Your task to perform on an android device: Open Reddit.com Image 0: 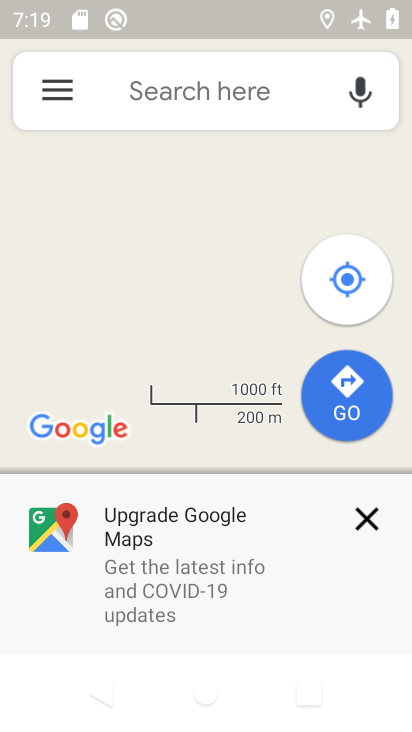
Step 0: press home button
Your task to perform on an android device: Open Reddit.com Image 1: 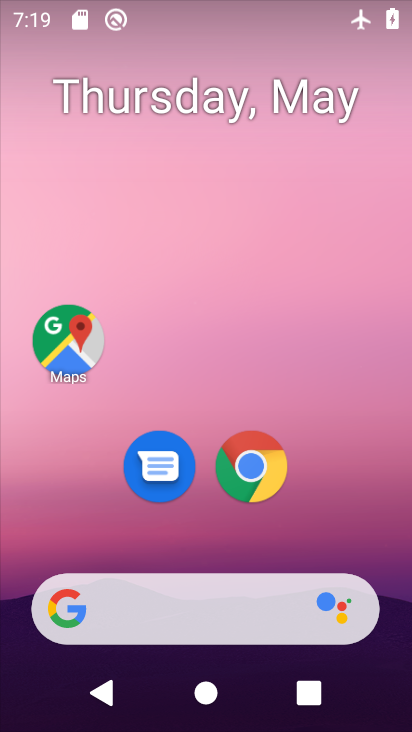
Step 1: click (142, 598)
Your task to perform on an android device: Open Reddit.com Image 2: 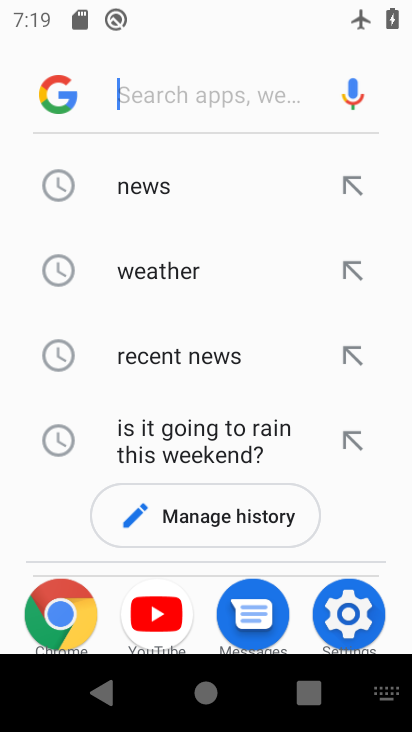
Step 2: type "reddit.com"
Your task to perform on an android device: Open Reddit.com Image 3: 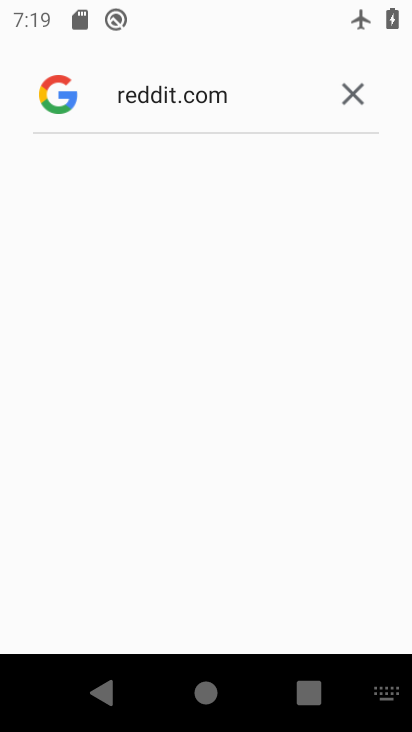
Step 3: task complete